Your task to perform on an android device: Clear the cart on bestbuy. Search for "duracell triple a" on bestbuy, select the first entry, and add it to the cart. Image 0: 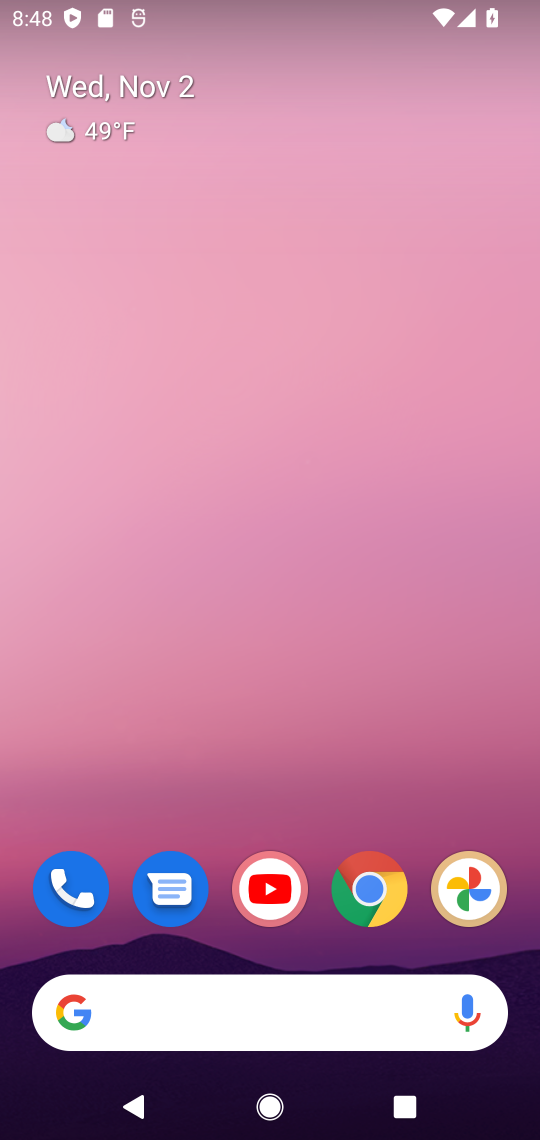
Step 0: drag from (335, 793) to (289, 135)
Your task to perform on an android device: Clear the cart on bestbuy. Search for "duracell triple a" on bestbuy, select the first entry, and add it to the cart. Image 1: 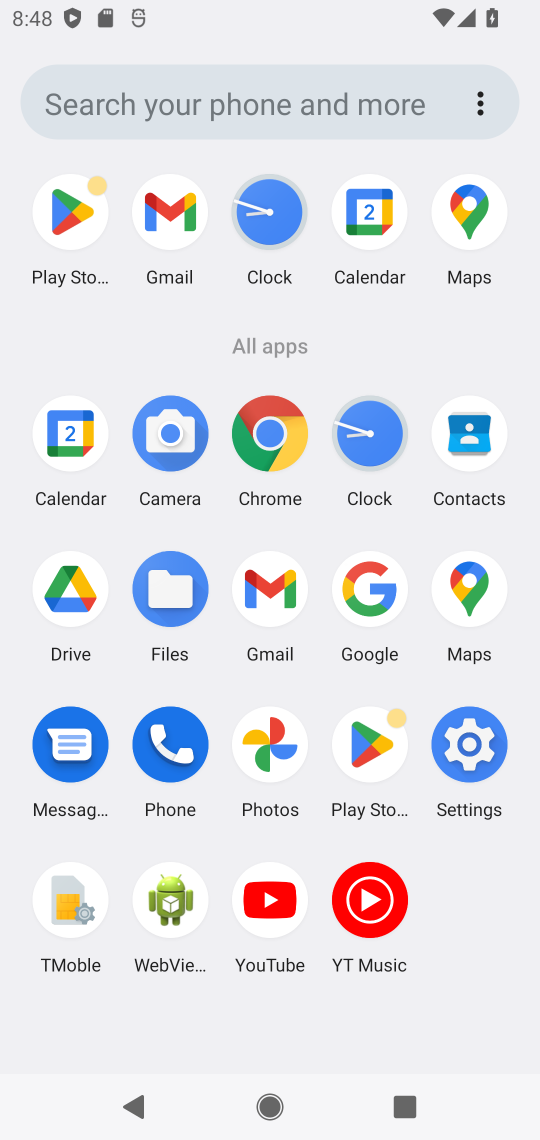
Step 1: click (264, 430)
Your task to perform on an android device: Clear the cart on bestbuy. Search for "duracell triple a" on bestbuy, select the first entry, and add it to the cart. Image 2: 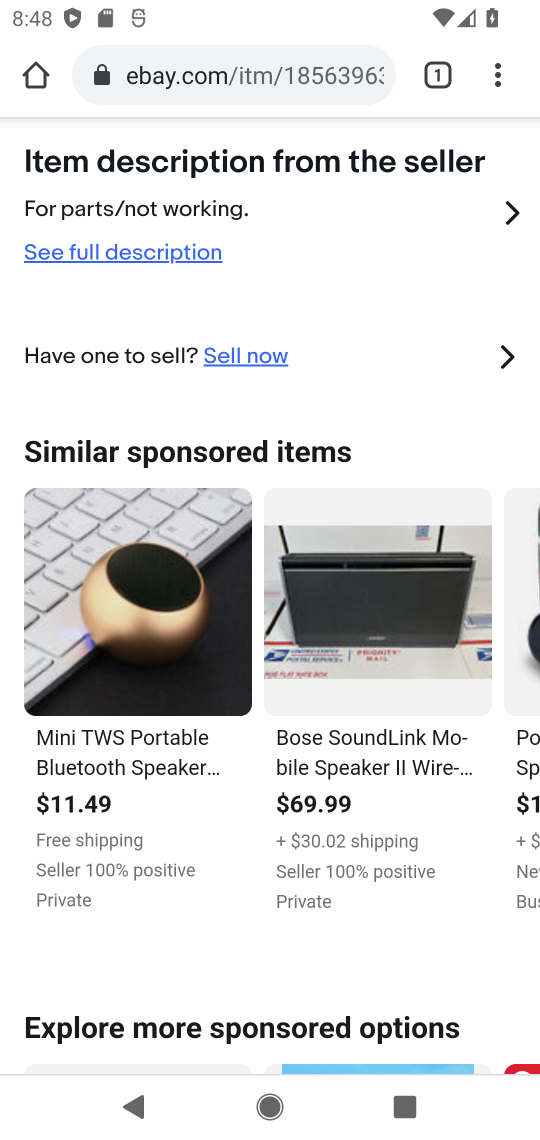
Step 2: click (183, 68)
Your task to perform on an android device: Clear the cart on bestbuy. Search for "duracell triple a" on bestbuy, select the first entry, and add it to the cart. Image 3: 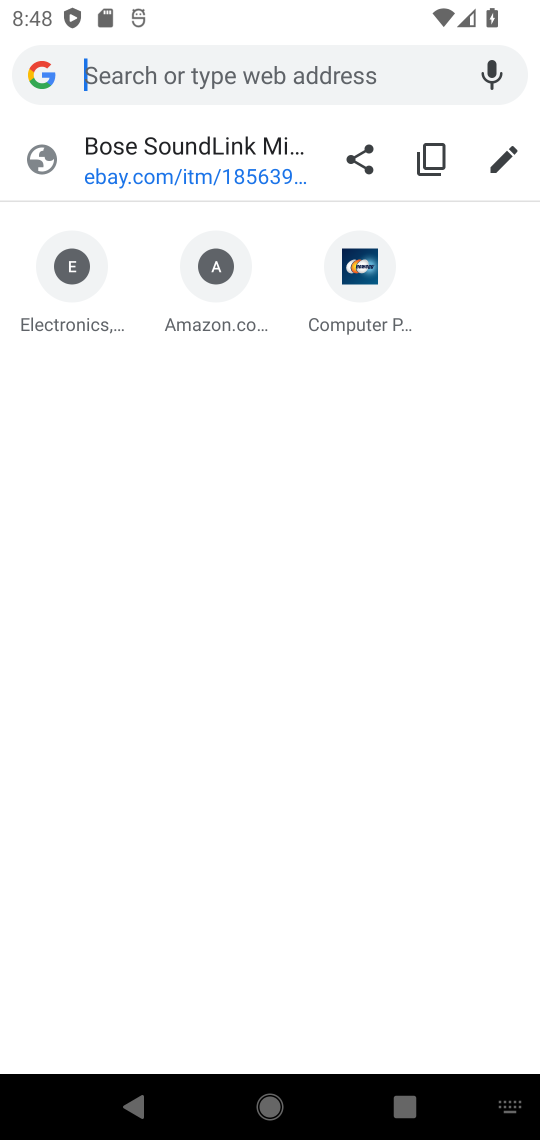
Step 3: type "bestbuy"
Your task to perform on an android device: Clear the cart on bestbuy. Search for "duracell triple a" on bestbuy, select the first entry, and add it to the cart. Image 4: 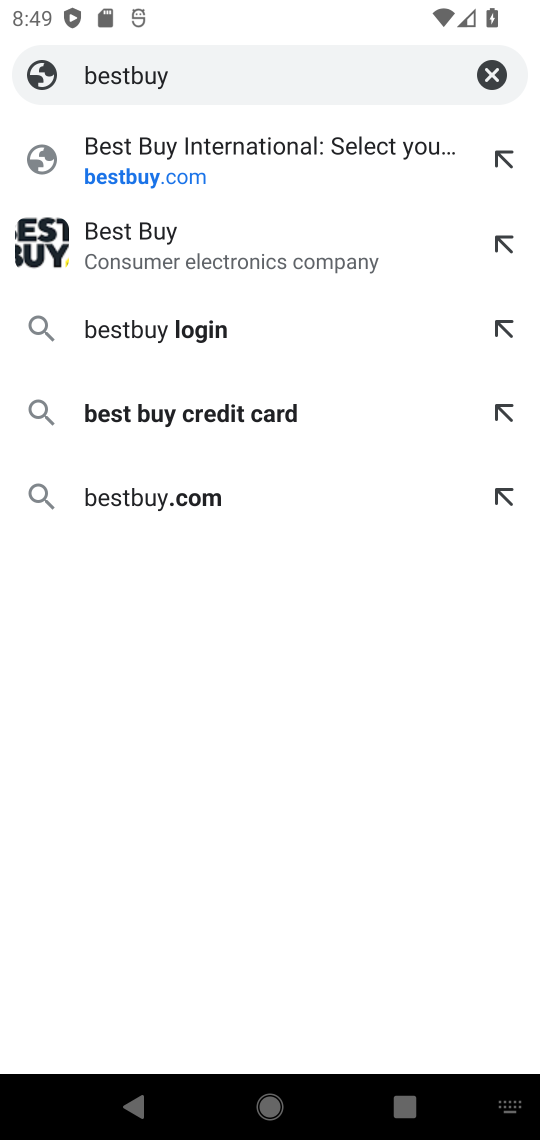
Step 4: click (161, 155)
Your task to perform on an android device: Clear the cart on bestbuy. Search for "duracell triple a" on bestbuy, select the first entry, and add it to the cart. Image 5: 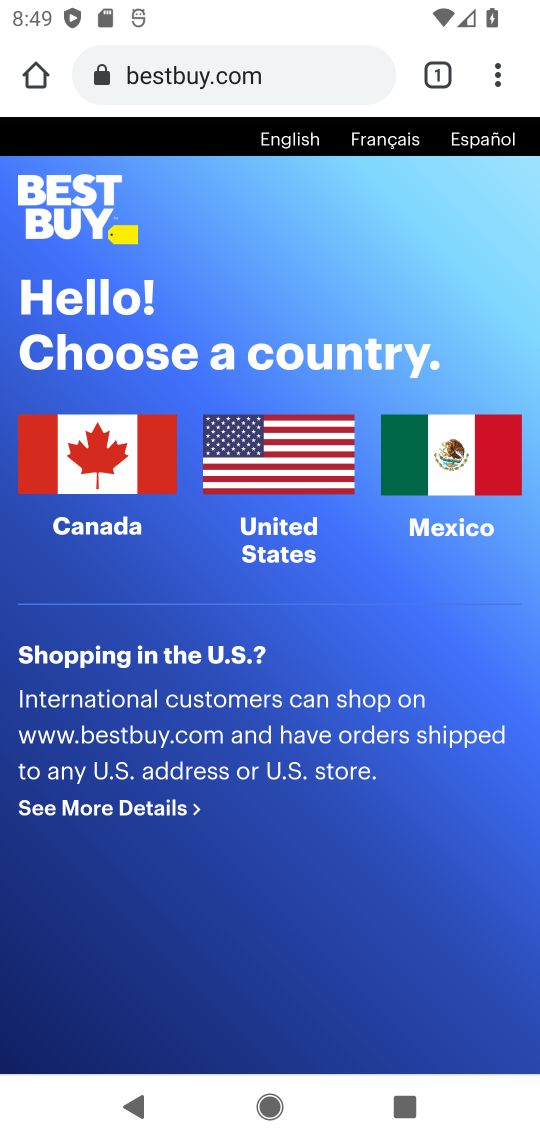
Step 5: click (238, 449)
Your task to perform on an android device: Clear the cart on bestbuy. Search for "duracell triple a" on bestbuy, select the first entry, and add it to the cart. Image 6: 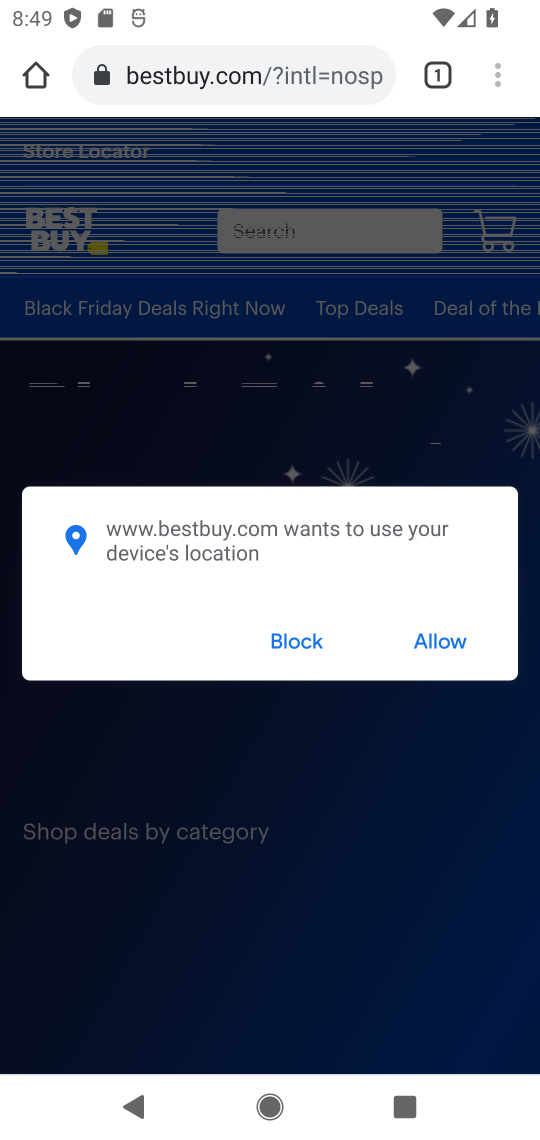
Step 6: click (449, 633)
Your task to perform on an android device: Clear the cart on bestbuy. Search for "duracell triple a" on bestbuy, select the first entry, and add it to the cart. Image 7: 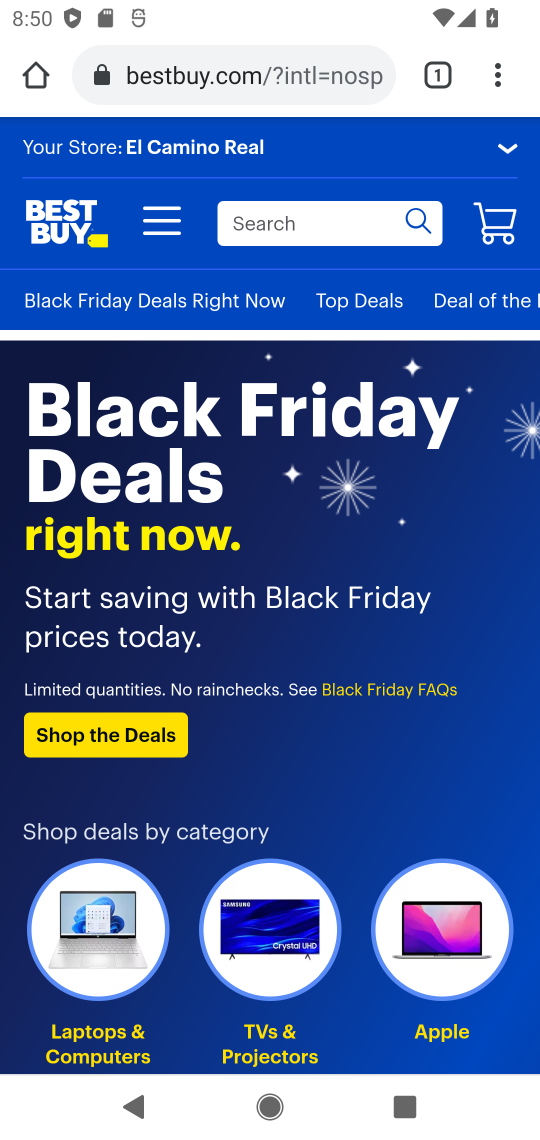
Step 7: click (318, 215)
Your task to perform on an android device: Clear the cart on bestbuy. Search for "duracell triple a" on bestbuy, select the first entry, and add it to the cart. Image 8: 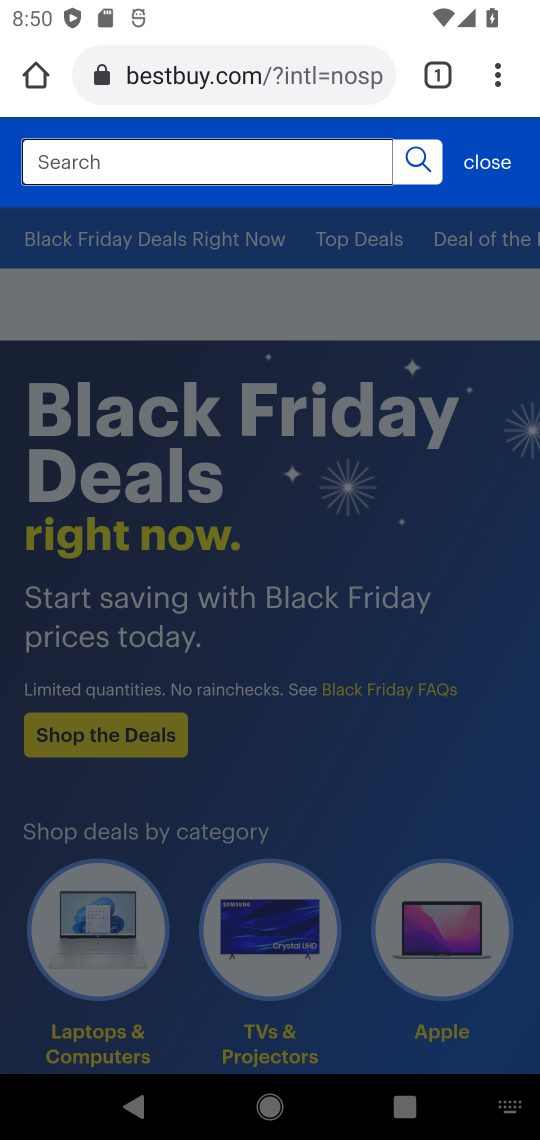
Step 8: type "duracell triple a"
Your task to perform on an android device: Clear the cart on bestbuy. Search for "duracell triple a" on bestbuy, select the first entry, and add it to the cart. Image 9: 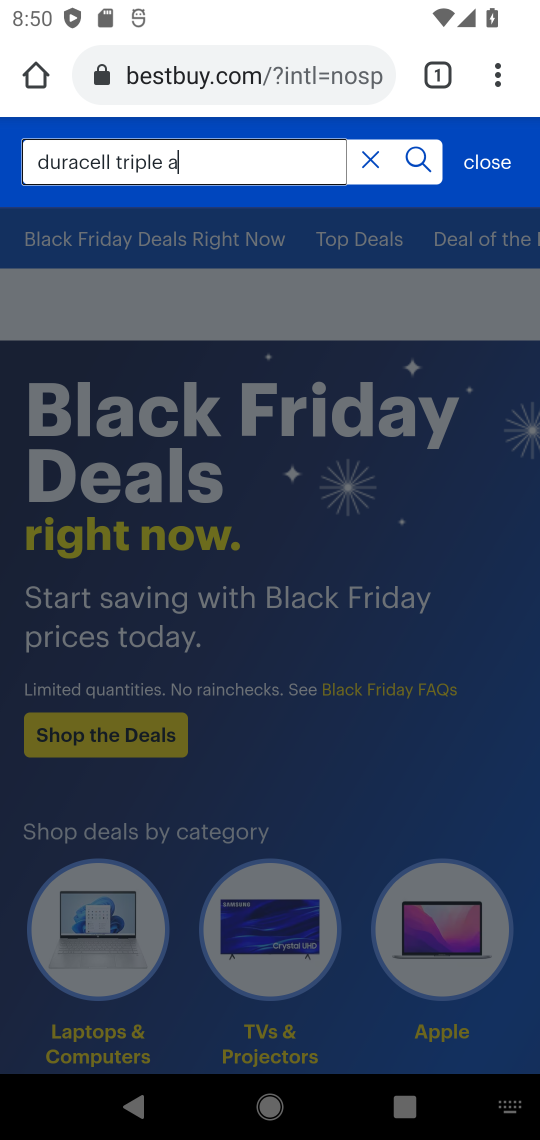
Step 9: click (419, 160)
Your task to perform on an android device: Clear the cart on bestbuy. Search for "duracell triple a" on bestbuy, select the first entry, and add it to the cart. Image 10: 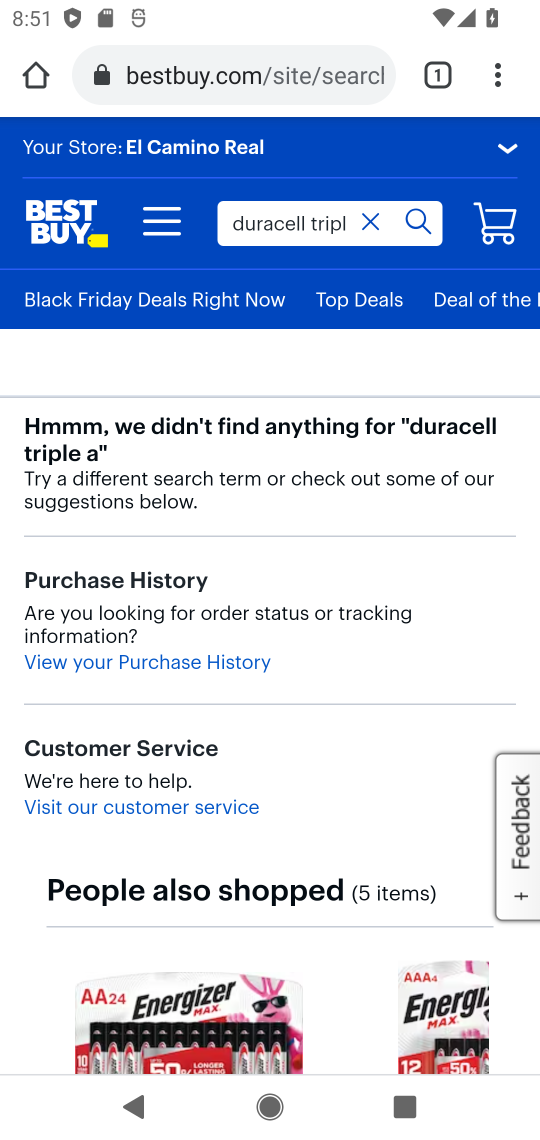
Step 10: task complete